Your task to perform on an android device: choose inbox layout in the gmail app Image 0: 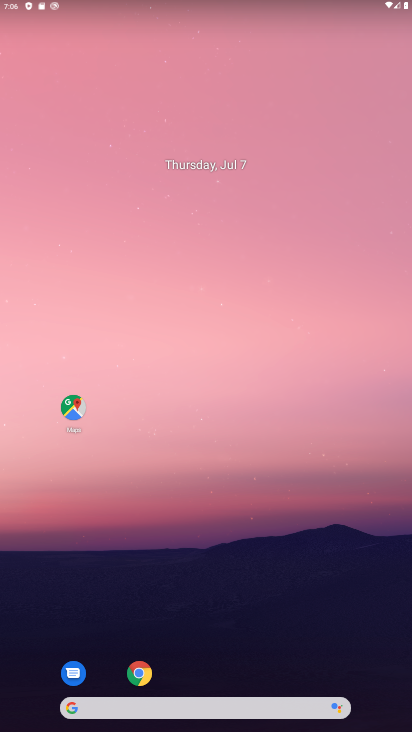
Step 0: drag from (233, 629) to (202, 69)
Your task to perform on an android device: choose inbox layout in the gmail app Image 1: 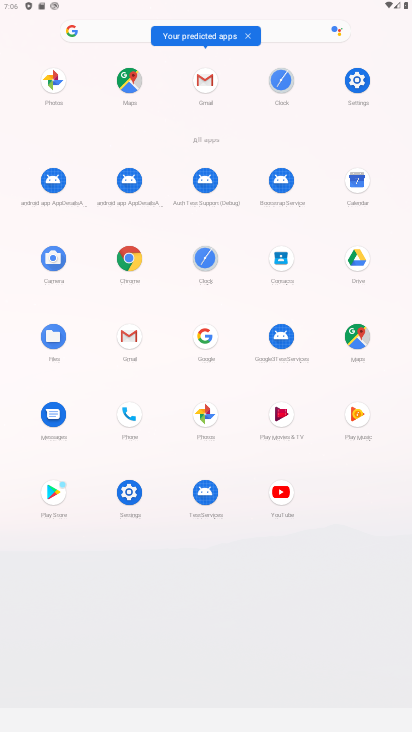
Step 1: click (204, 81)
Your task to perform on an android device: choose inbox layout in the gmail app Image 2: 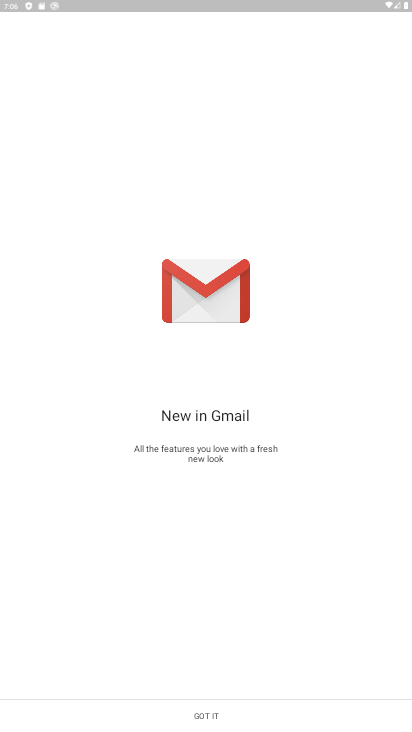
Step 2: click (212, 715)
Your task to perform on an android device: choose inbox layout in the gmail app Image 3: 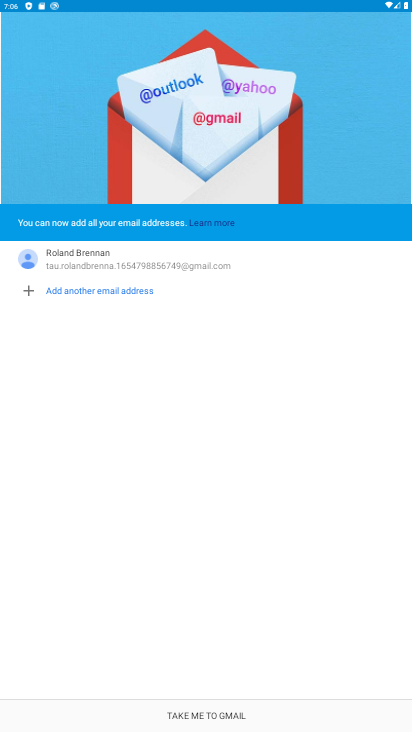
Step 3: click (212, 715)
Your task to perform on an android device: choose inbox layout in the gmail app Image 4: 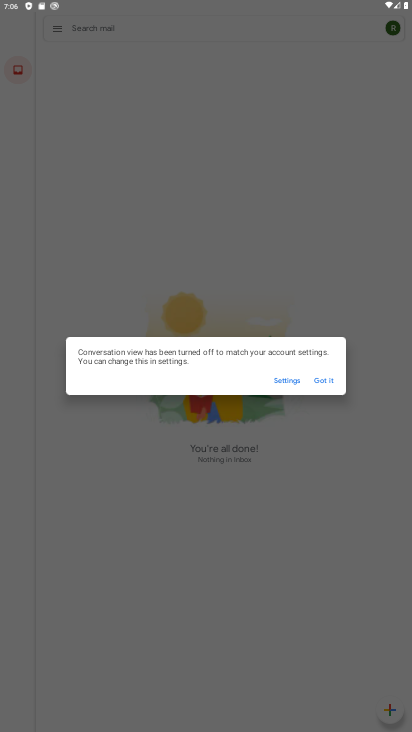
Step 4: click (326, 380)
Your task to perform on an android device: choose inbox layout in the gmail app Image 5: 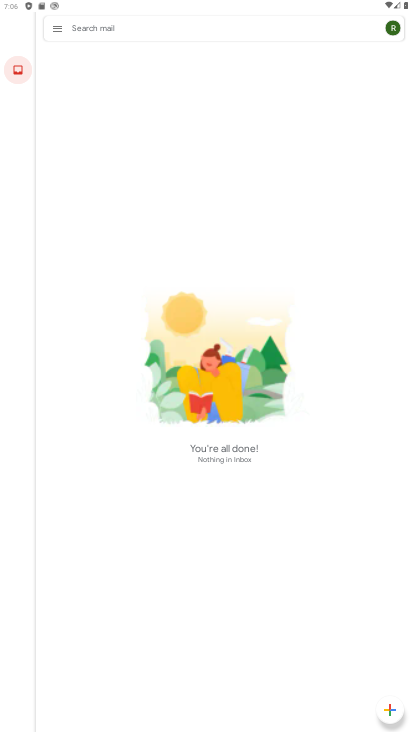
Step 5: click (56, 31)
Your task to perform on an android device: choose inbox layout in the gmail app Image 6: 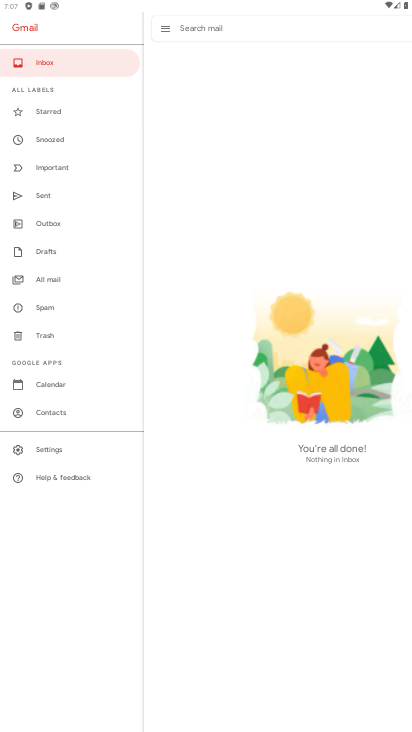
Step 6: click (43, 450)
Your task to perform on an android device: choose inbox layout in the gmail app Image 7: 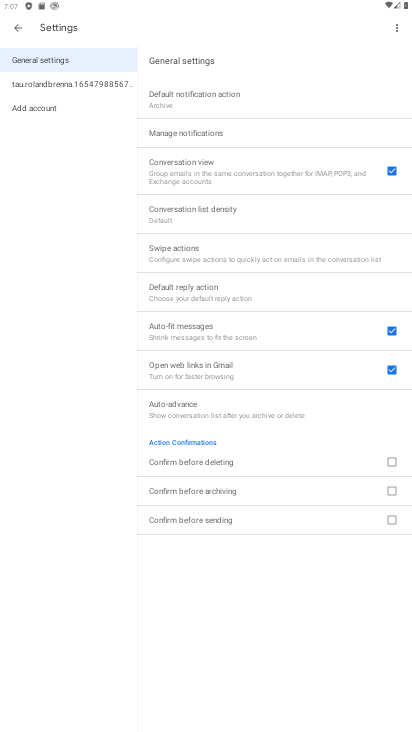
Step 7: click (91, 87)
Your task to perform on an android device: choose inbox layout in the gmail app Image 8: 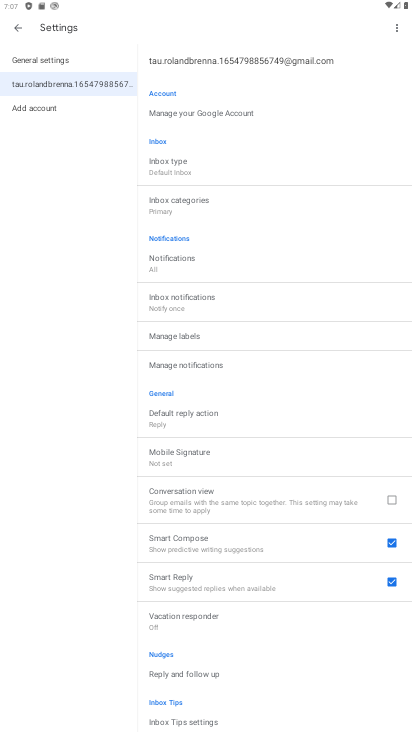
Step 8: click (185, 170)
Your task to perform on an android device: choose inbox layout in the gmail app Image 9: 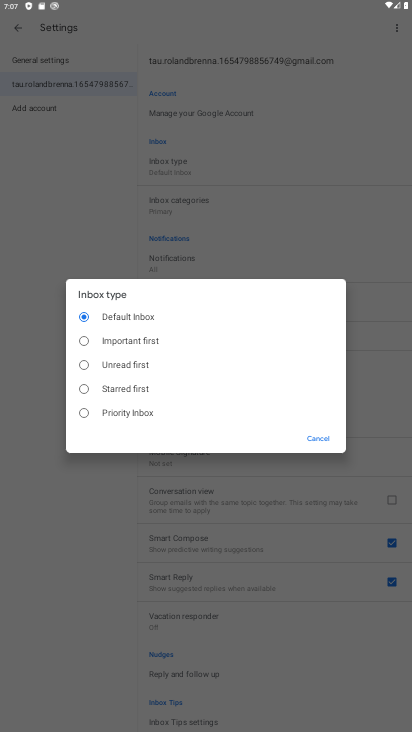
Step 9: click (83, 363)
Your task to perform on an android device: choose inbox layout in the gmail app Image 10: 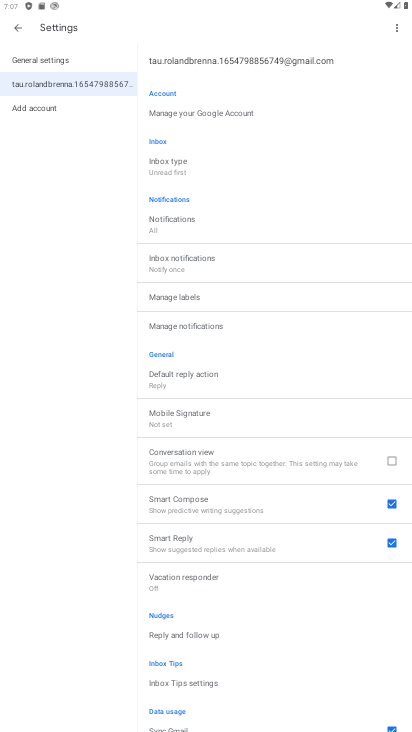
Step 10: task complete